Your task to perform on an android device: Open the web browser Image 0: 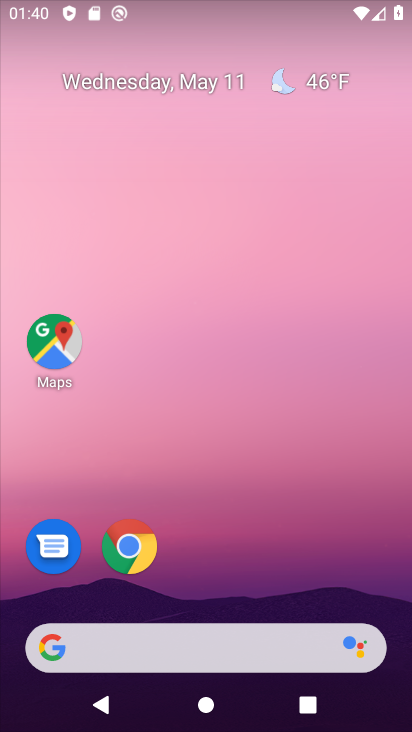
Step 0: drag from (205, 584) to (299, 66)
Your task to perform on an android device: Open the web browser Image 1: 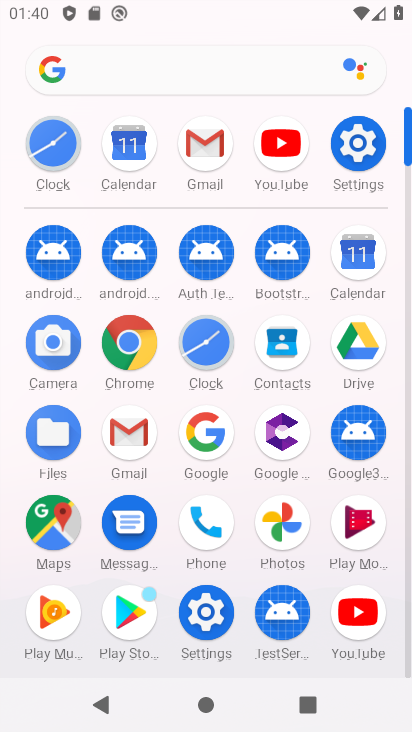
Step 1: click (130, 337)
Your task to perform on an android device: Open the web browser Image 2: 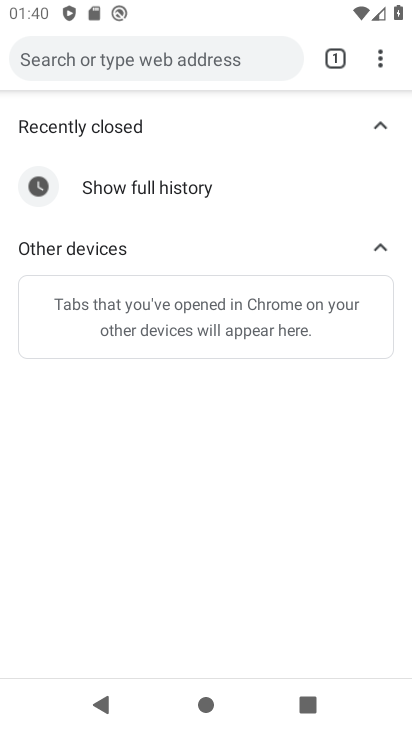
Step 2: drag from (298, 169) to (300, 599)
Your task to perform on an android device: Open the web browser Image 3: 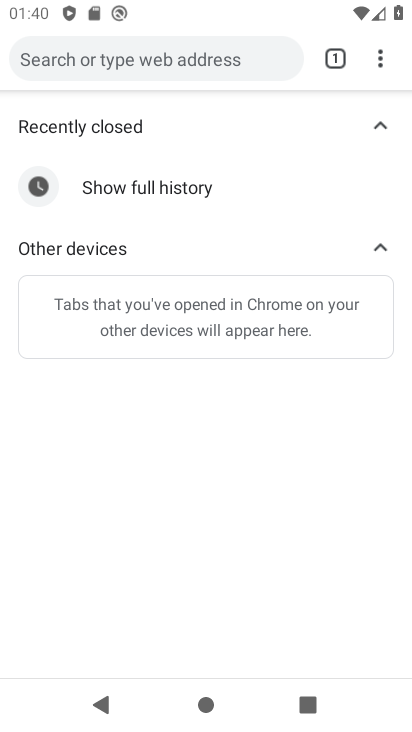
Step 3: drag from (191, 509) to (325, 155)
Your task to perform on an android device: Open the web browser Image 4: 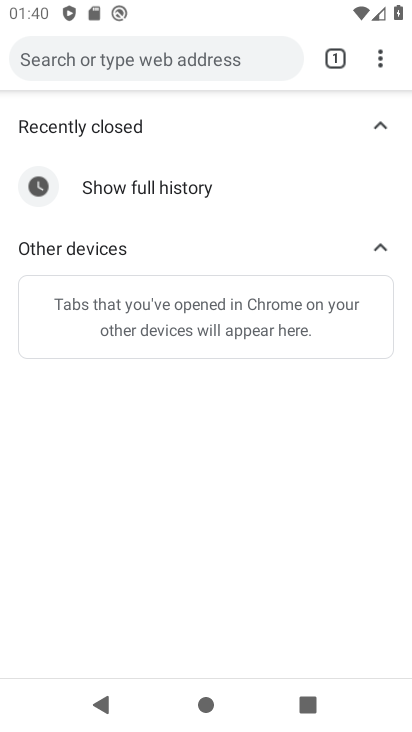
Step 4: click (331, 53)
Your task to perform on an android device: Open the web browser Image 5: 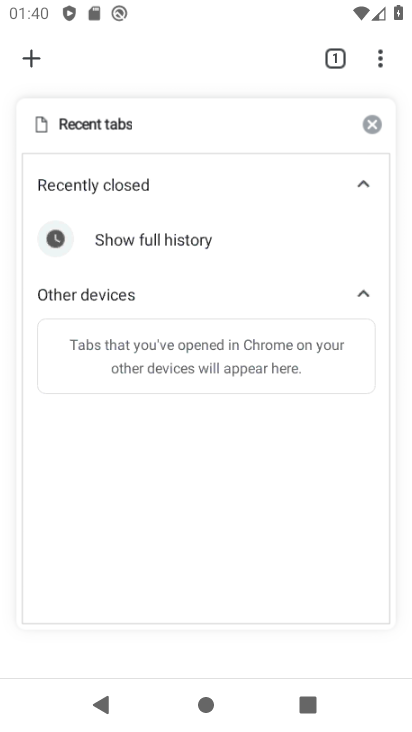
Step 5: click (23, 49)
Your task to perform on an android device: Open the web browser Image 6: 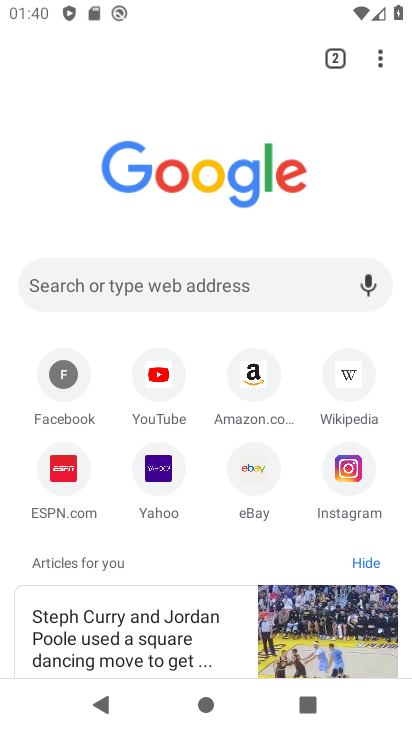
Step 6: task complete